Your task to perform on an android device: Open Android settings Image 0: 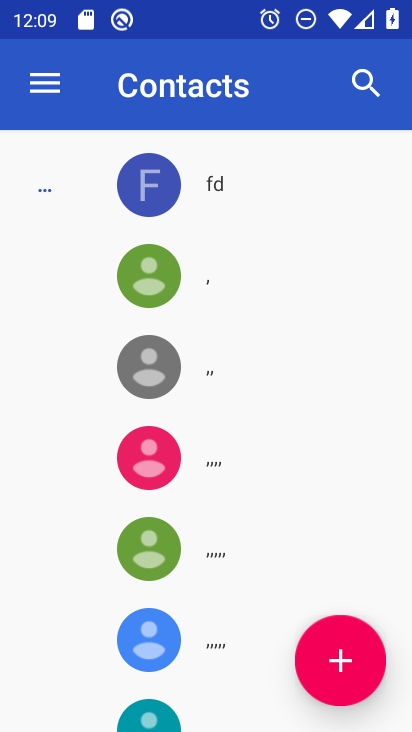
Step 0: press home button
Your task to perform on an android device: Open Android settings Image 1: 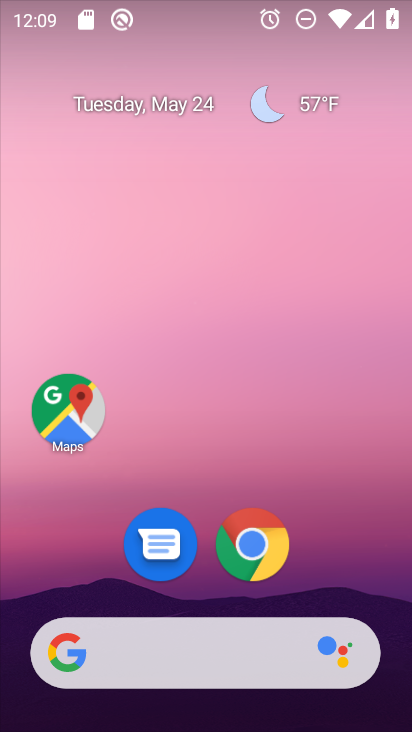
Step 1: drag from (377, 605) to (327, 137)
Your task to perform on an android device: Open Android settings Image 2: 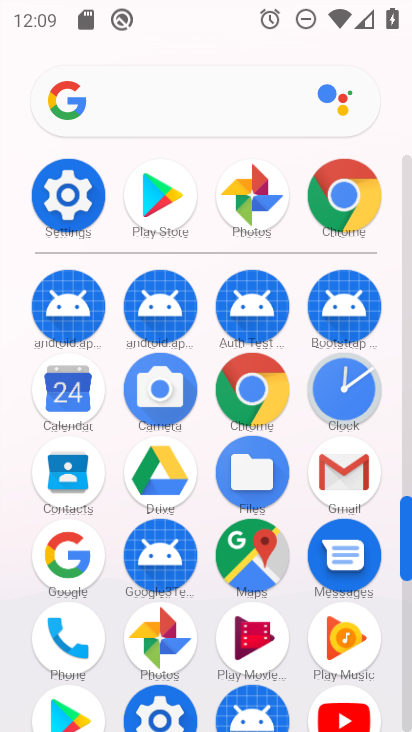
Step 2: click (403, 704)
Your task to perform on an android device: Open Android settings Image 3: 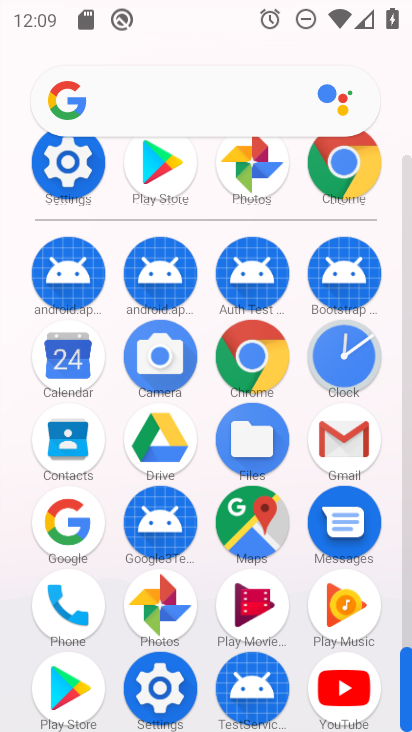
Step 3: click (160, 692)
Your task to perform on an android device: Open Android settings Image 4: 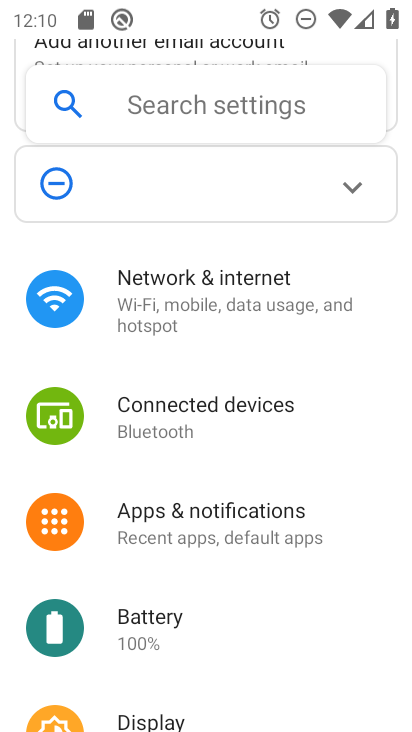
Step 4: drag from (160, 692) to (186, 361)
Your task to perform on an android device: Open Android settings Image 5: 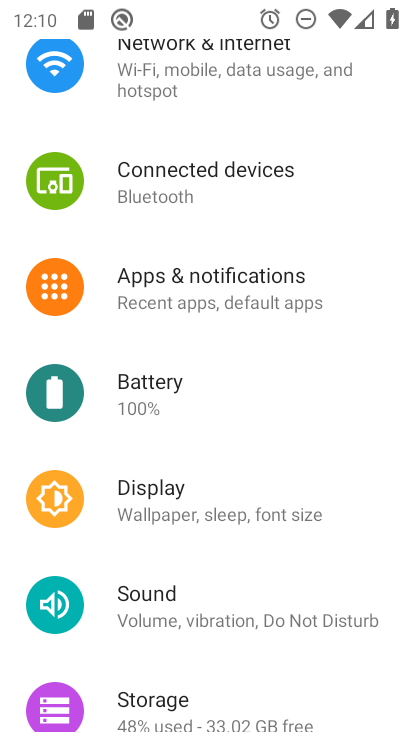
Step 5: drag from (211, 584) to (151, 117)
Your task to perform on an android device: Open Android settings Image 6: 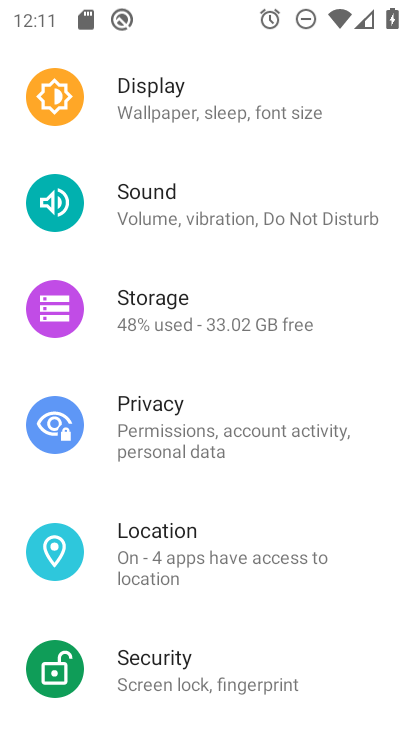
Step 6: drag from (310, 661) to (269, 169)
Your task to perform on an android device: Open Android settings Image 7: 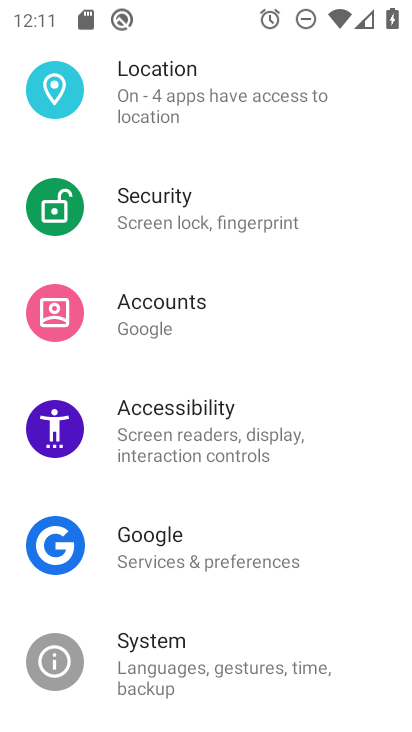
Step 7: drag from (279, 667) to (284, 127)
Your task to perform on an android device: Open Android settings Image 8: 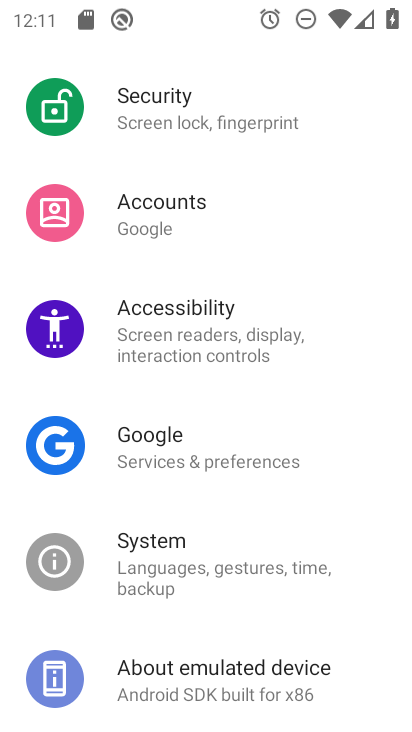
Step 8: click (203, 673)
Your task to perform on an android device: Open Android settings Image 9: 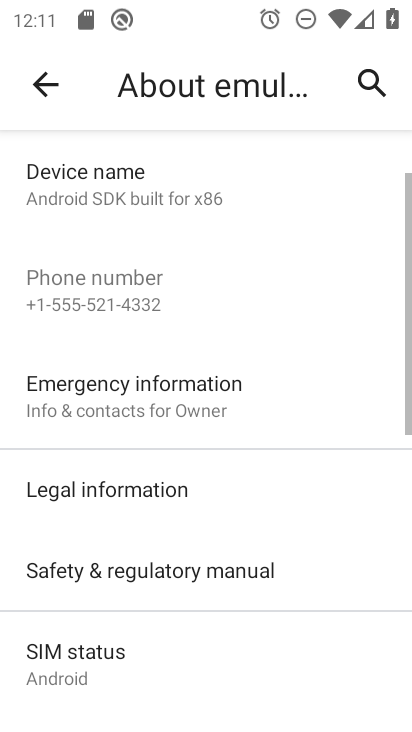
Step 9: task complete